Your task to perform on an android device: Go to internet settings Image 0: 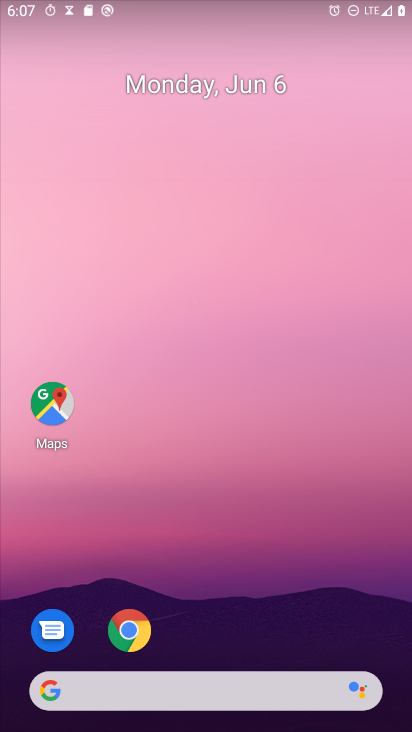
Step 0: drag from (283, 598) to (193, 42)
Your task to perform on an android device: Go to internet settings Image 1: 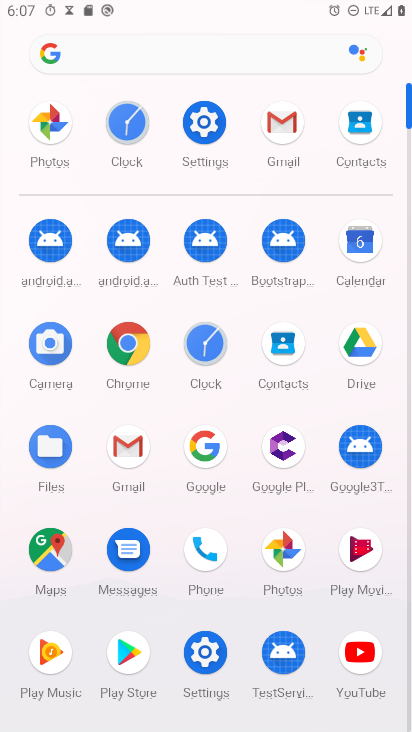
Step 1: click (206, 129)
Your task to perform on an android device: Go to internet settings Image 2: 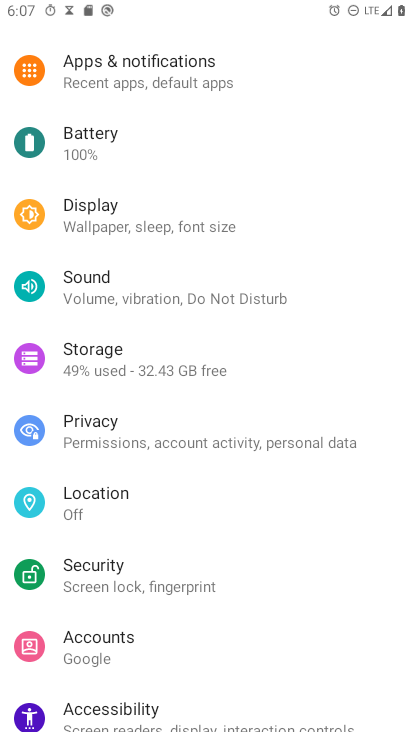
Step 2: drag from (225, 81) to (188, 730)
Your task to perform on an android device: Go to internet settings Image 3: 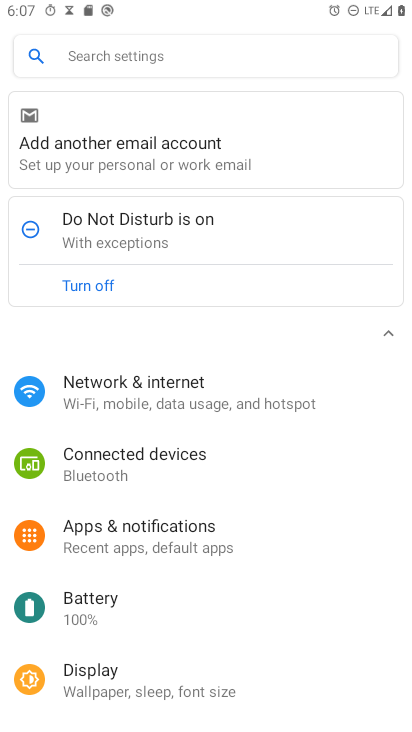
Step 3: click (165, 396)
Your task to perform on an android device: Go to internet settings Image 4: 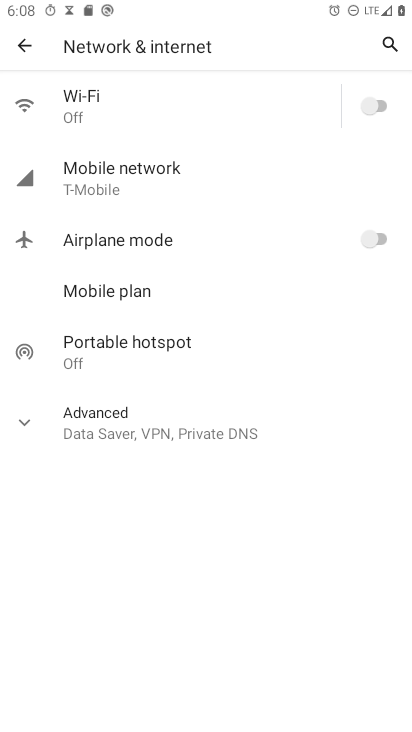
Step 4: task complete